Your task to perform on an android device: open sync settings in chrome Image 0: 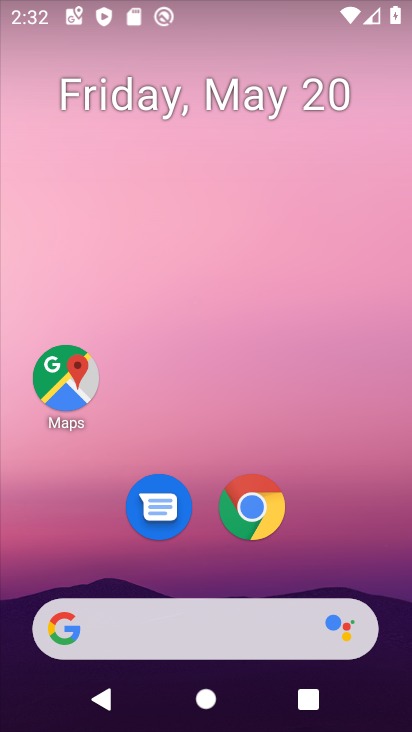
Step 0: click (252, 510)
Your task to perform on an android device: open sync settings in chrome Image 1: 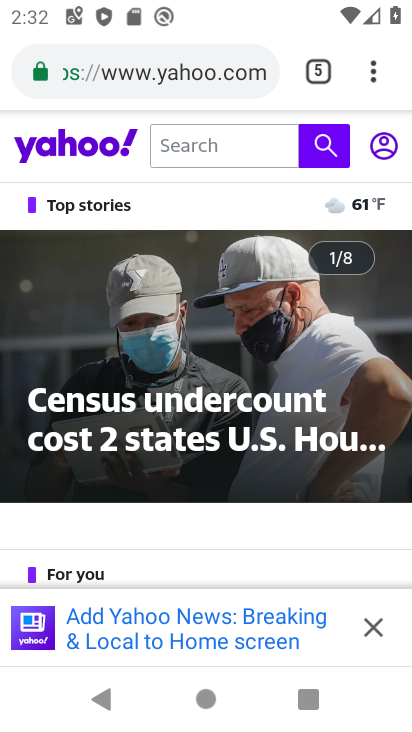
Step 1: click (374, 77)
Your task to perform on an android device: open sync settings in chrome Image 2: 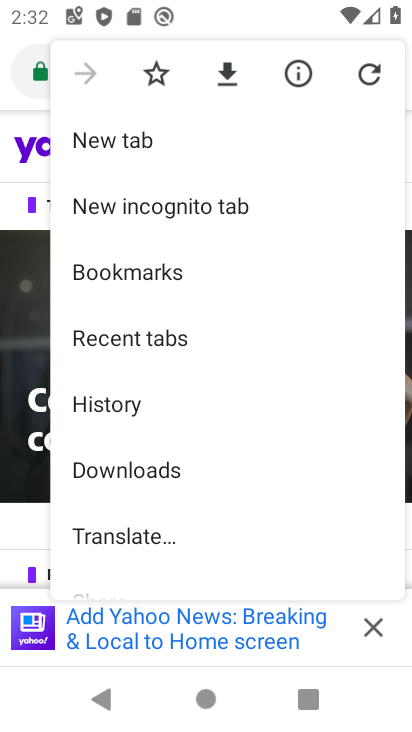
Step 2: drag from (185, 531) to (191, 177)
Your task to perform on an android device: open sync settings in chrome Image 3: 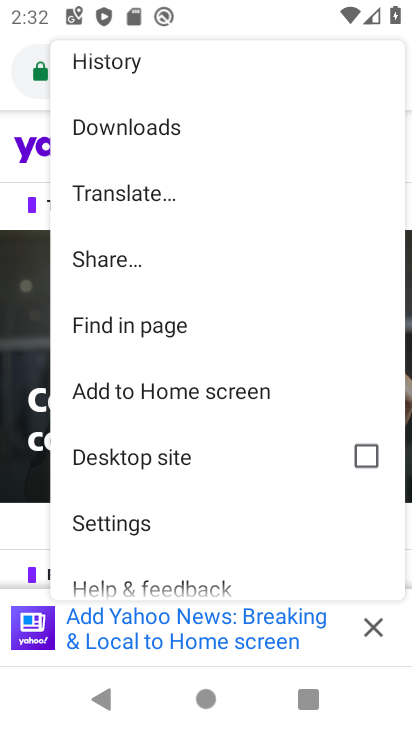
Step 3: click (122, 521)
Your task to perform on an android device: open sync settings in chrome Image 4: 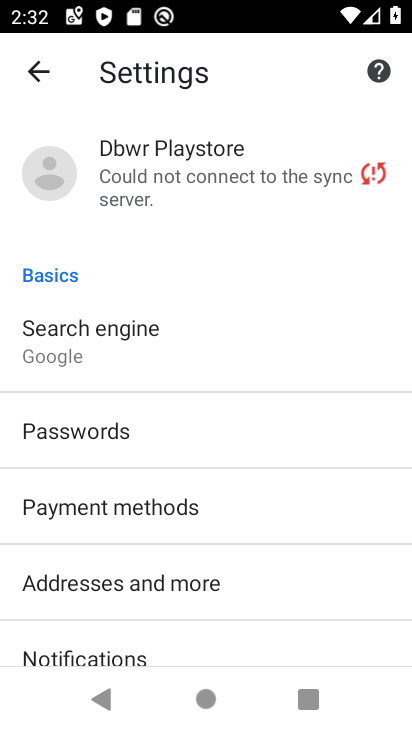
Step 4: drag from (130, 644) to (145, 236)
Your task to perform on an android device: open sync settings in chrome Image 5: 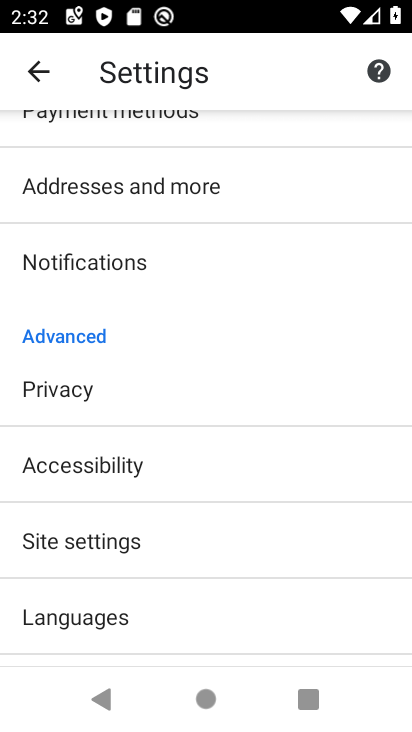
Step 5: click (98, 540)
Your task to perform on an android device: open sync settings in chrome Image 6: 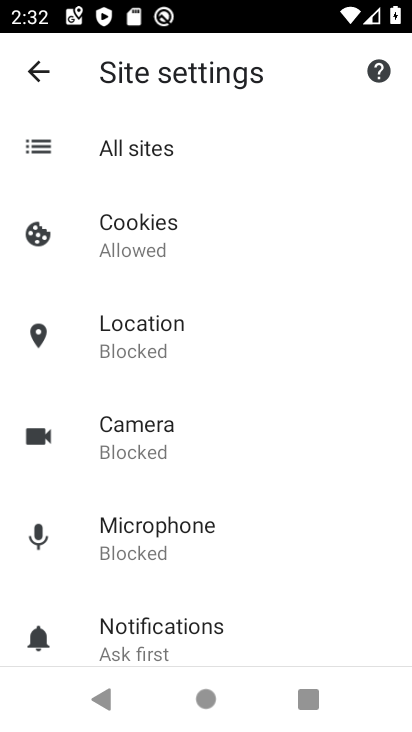
Step 6: drag from (160, 597) to (159, 276)
Your task to perform on an android device: open sync settings in chrome Image 7: 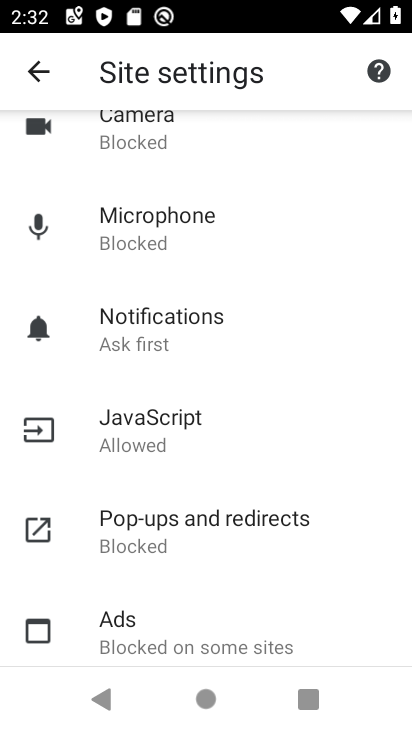
Step 7: drag from (152, 586) to (150, 267)
Your task to perform on an android device: open sync settings in chrome Image 8: 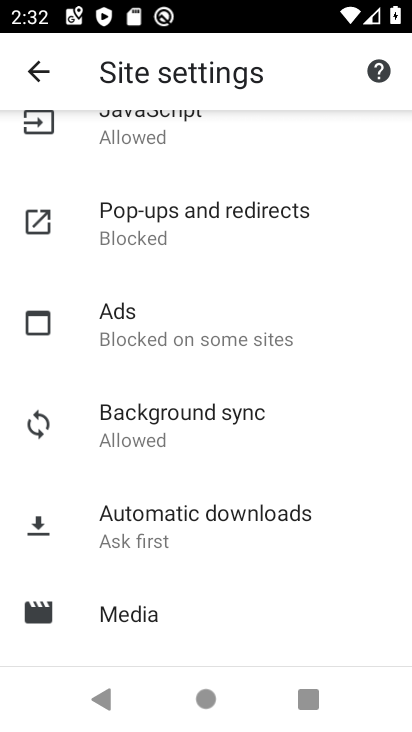
Step 8: drag from (175, 575) to (171, 338)
Your task to perform on an android device: open sync settings in chrome Image 9: 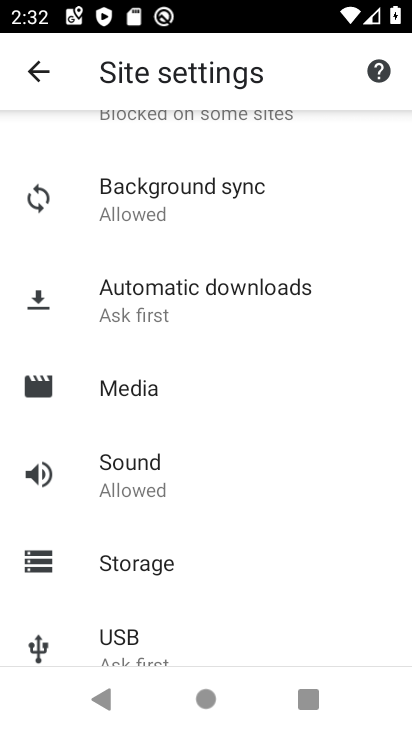
Step 9: click (162, 183)
Your task to perform on an android device: open sync settings in chrome Image 10: 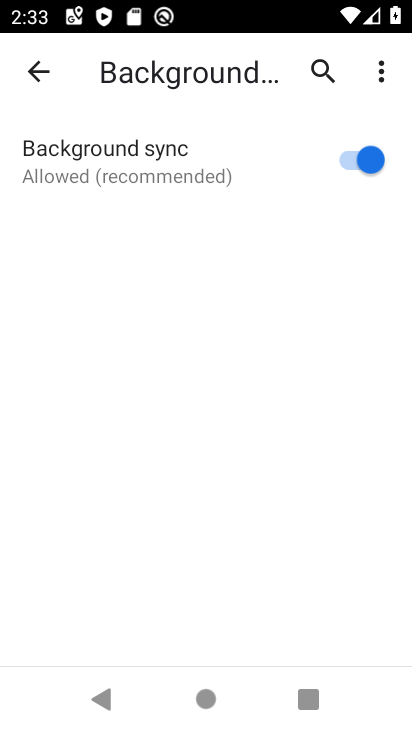
Step 10: task complete